Your task to perform on an android device: allow cookies in the chrome app Image 0: 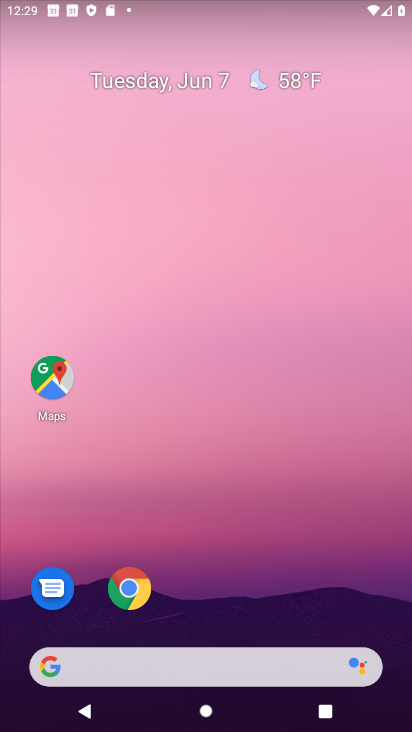
Step 0: click (147, 575)
Your task to perform on an android device: allow cookies in the chrome app Image 1: 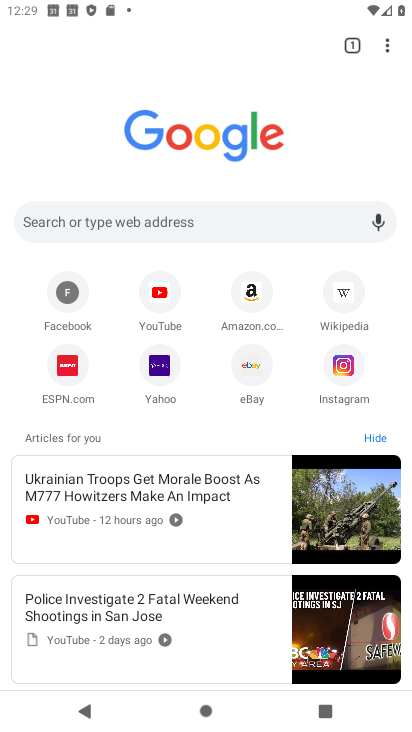
Step 1: click (395, 39)
Your task to perform on an android device: allow cookies in the chrome app Image 2: 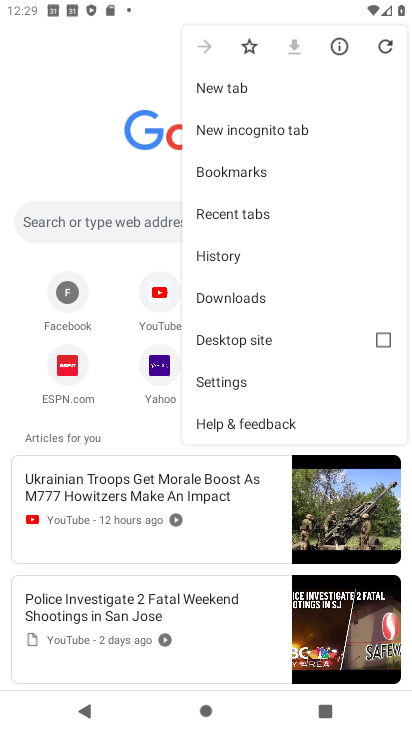
Step 2: click (240, 376)
Your task to perform on an android device: allow cookies in the chrome app Image 3: 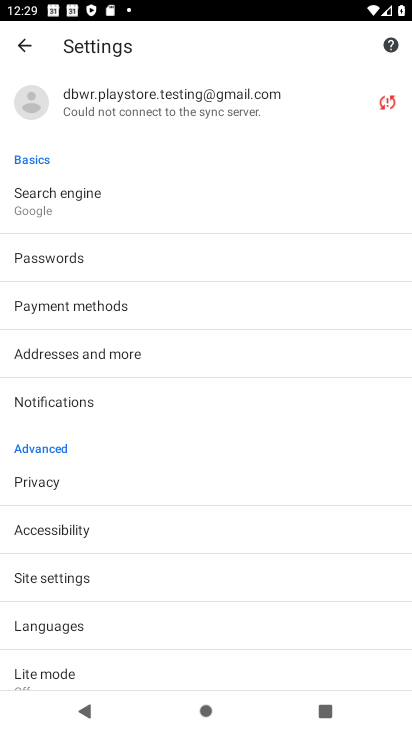
Step 3: task complete